Your task to perform on an android device: Go to Google maps Image 0: 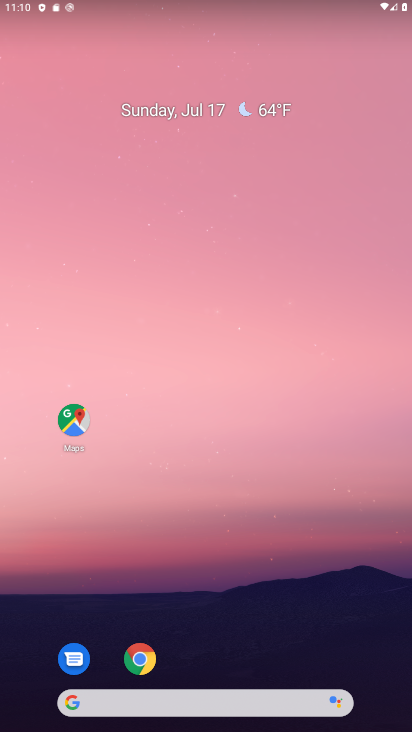
Step 0: click (79, 420)
Your task to perform on an android device: Go to Google maps Image 1: 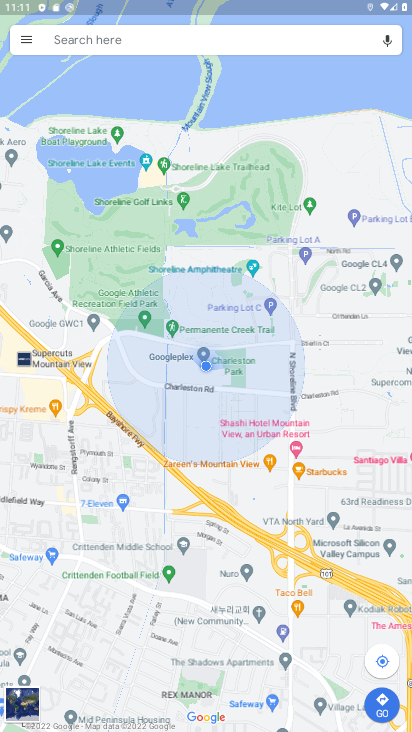
Step 1: task complete